Your task to perform on an android device: Go to wifi settings Image 0: 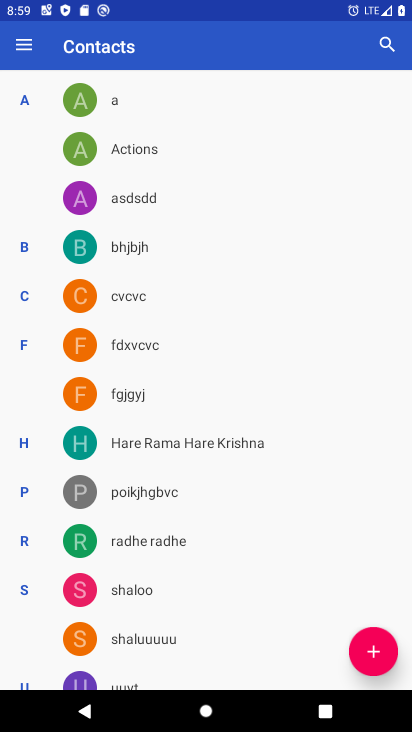
Step 0: press home button
Your task to perform on an android device: Go to wifi settings Image 1: 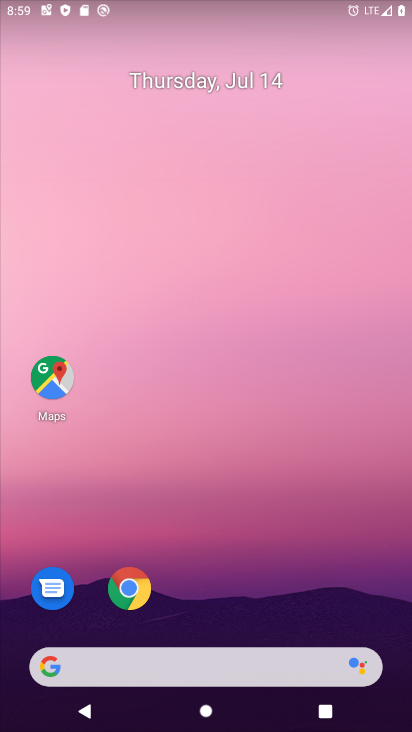
Step 1: drag from (256, 508) to (266, 27)
Your task to perform on an android device: Go to wifi settings Image 2: 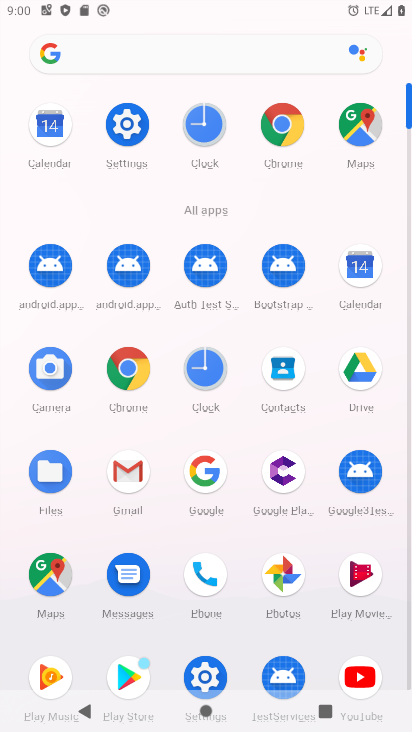
Step 2: click (129, 124)
Your task to perform on an android device: Go to wifi settings Image 3: 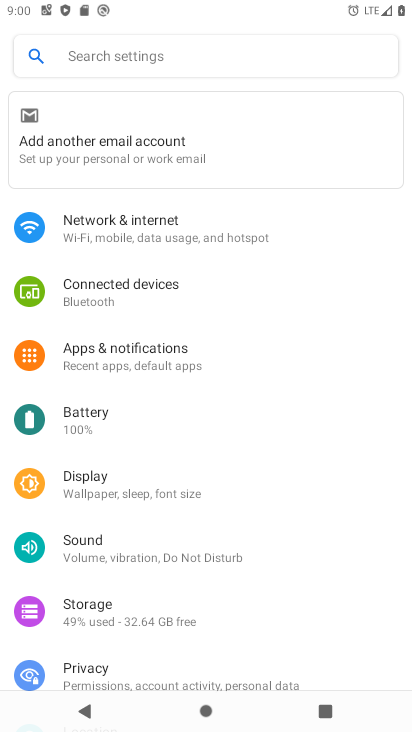
Step 3: click (117, 220)
Your task to perform on an android device: Go to wifi settings Image 4: 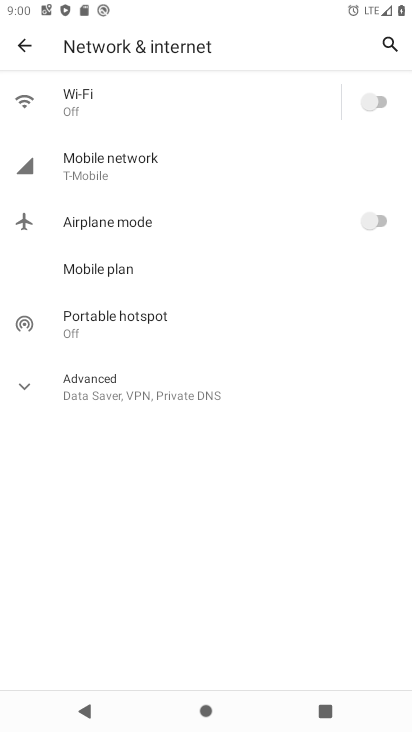
Step 4: click (157, 96)
Your task to perform on an android device: Go to wifi settings Image 5: 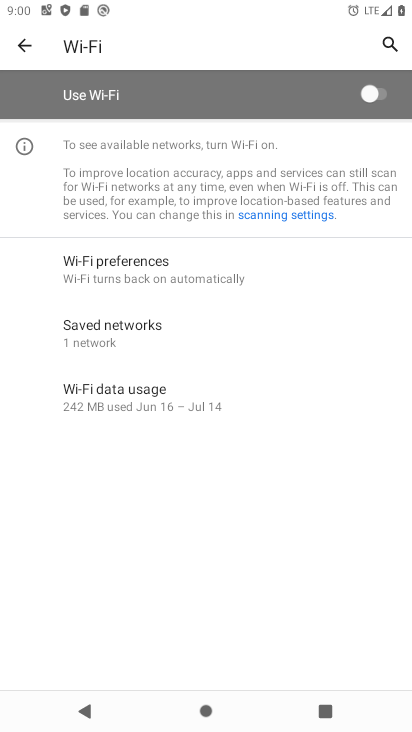
Step 5: task complete